Your task to perform on an android device: star an email in the gmail app Image 0: 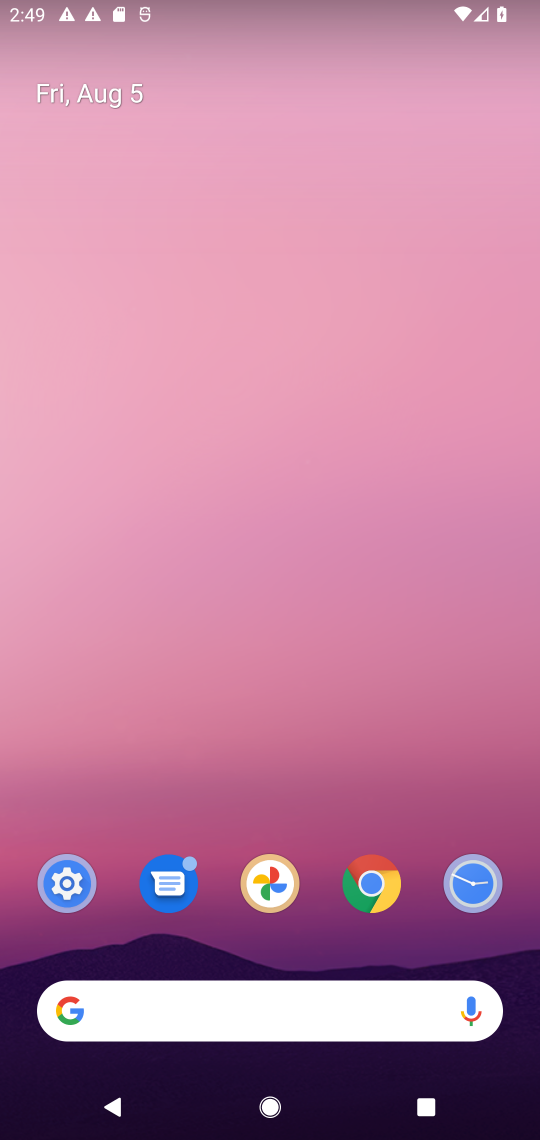
Step 0: press home button
Your task to perform on an android device: star an email in the gmail app Image 1: 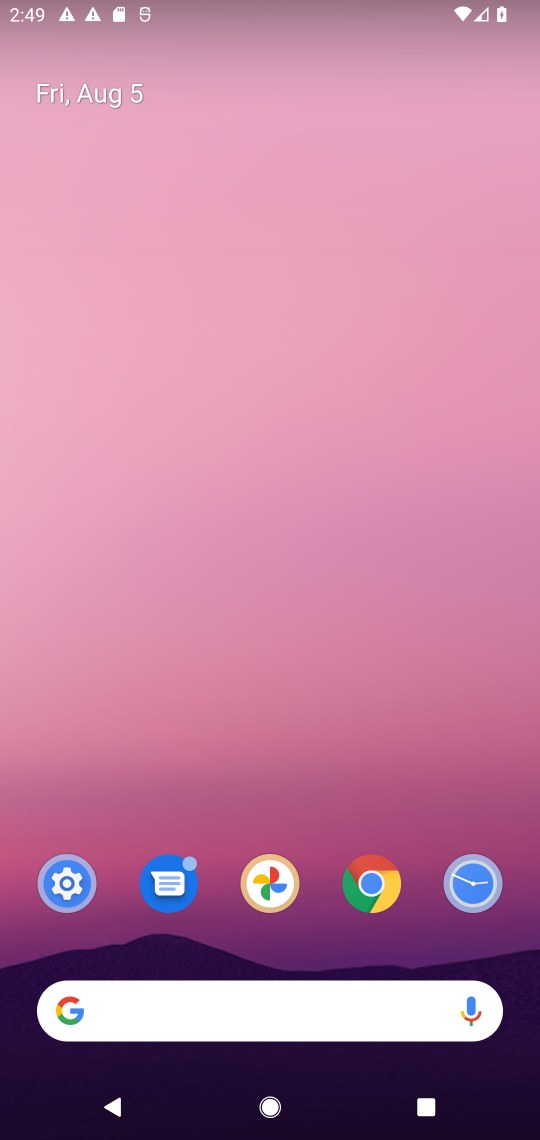
Step 1: drag from (324, 929) to (305, 60)
Your task to perform on an android device: star an email in the gmail app Image 2: 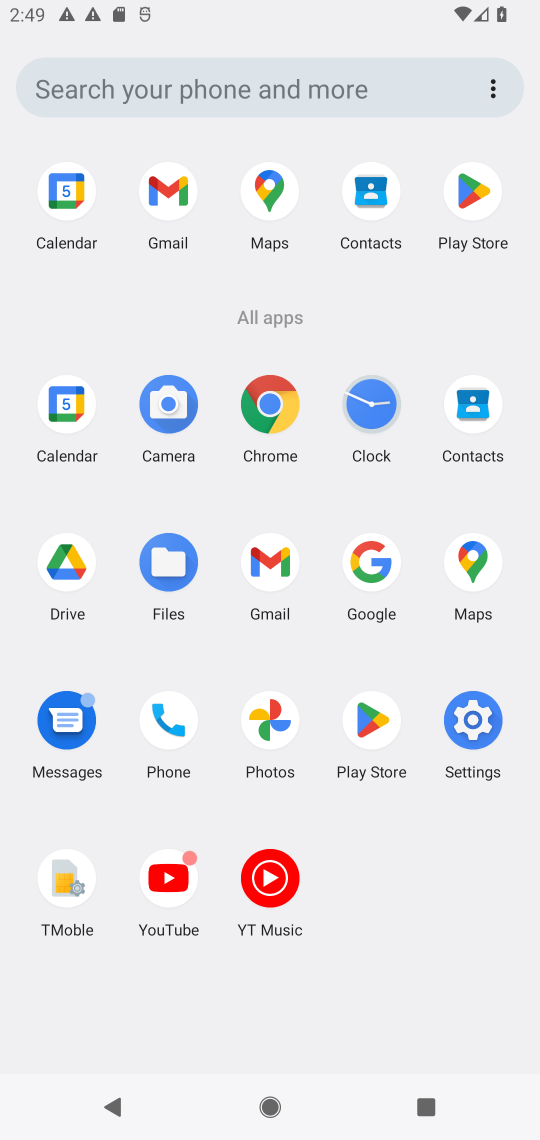
Step 2: click (267, 549)
Your task to perform on an android device: star an email in the gmail app Image 3: 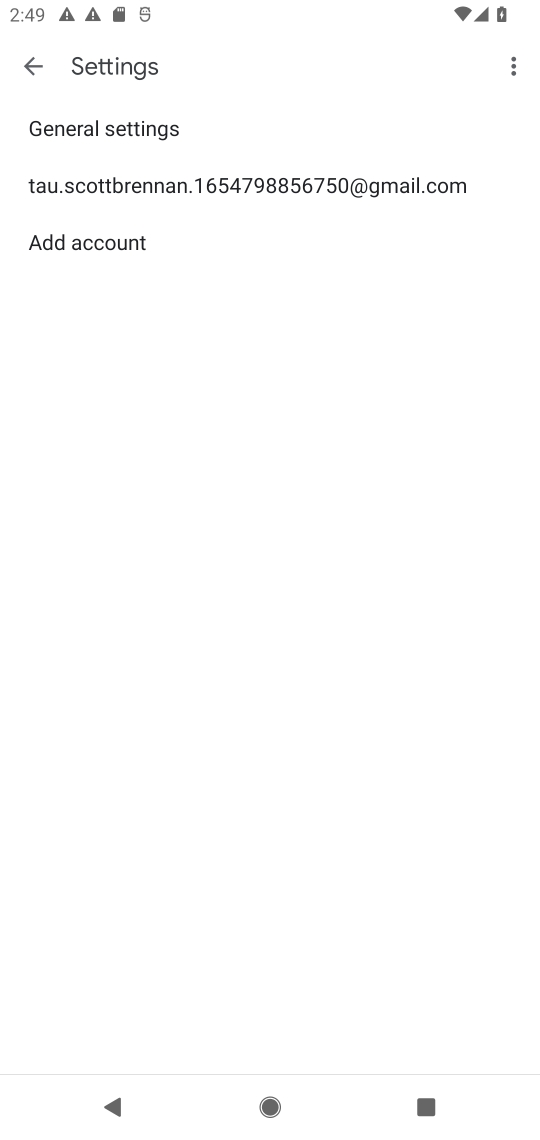
Step 3: click (33, 69)
Your task to perform on an android device: star an email in the gmail app Image 4: 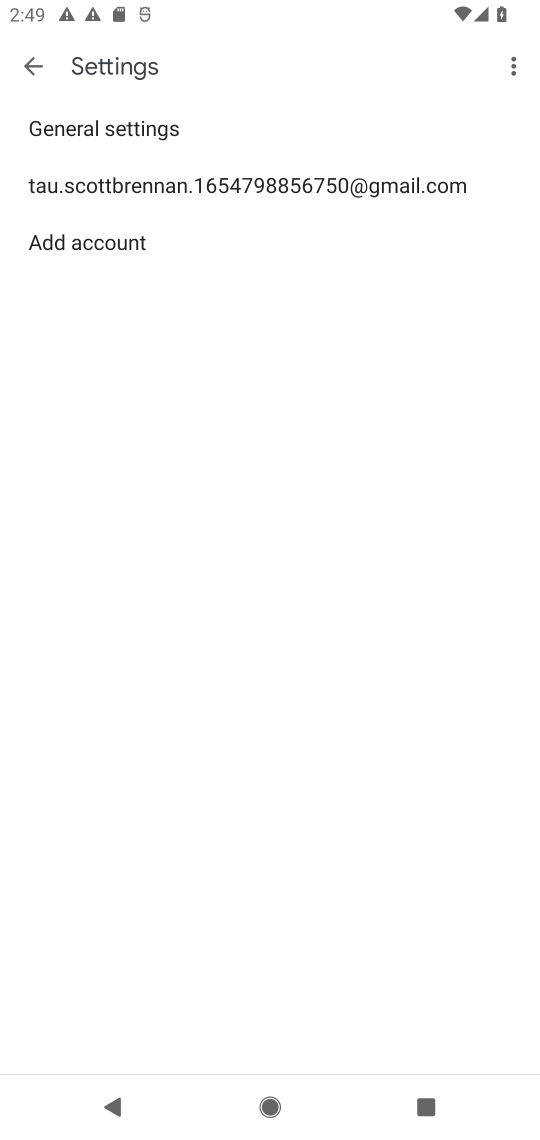
Step 4: click (30, 66)
Your task to perform on an android device: star an email in the gmail app Image 5: 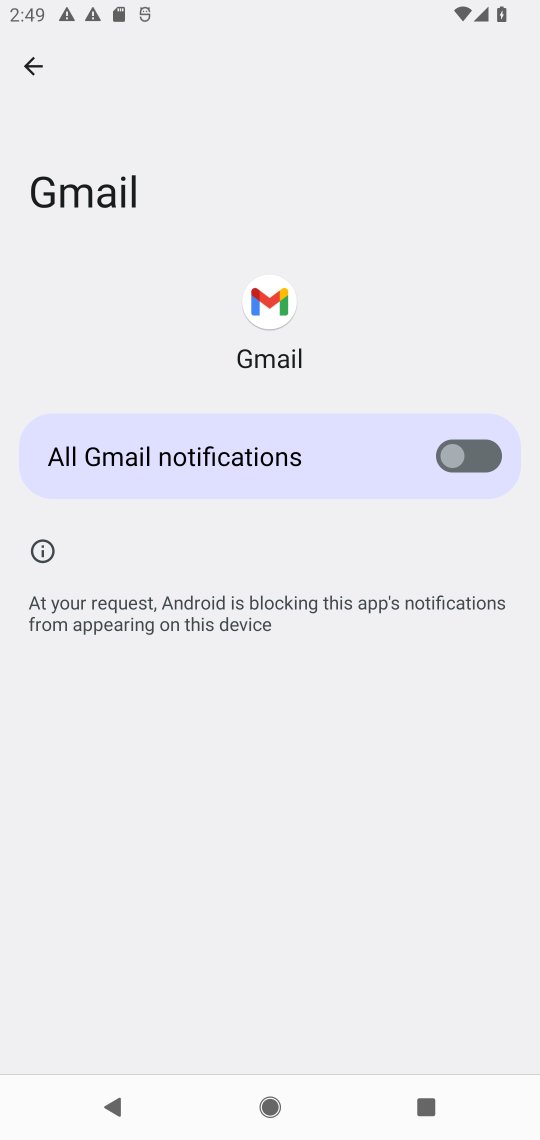
Step 5: click (36, 58)
Your task to perform on an android device: star an email in the gmail app Image 6: 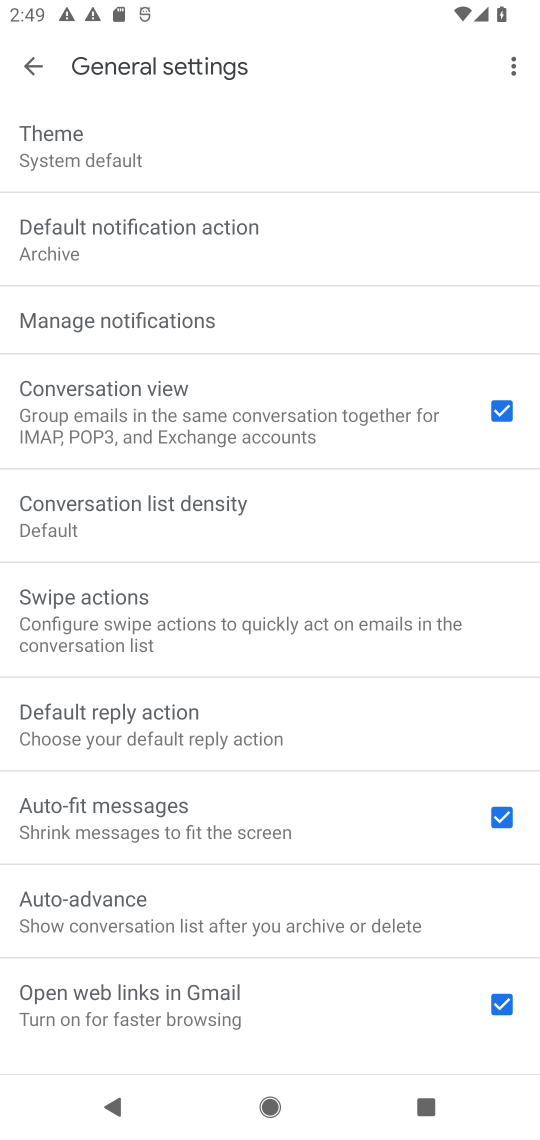
Step 6: click (26, 69)
Your task to perform on an android device: star an email in the gmail app Image 7: 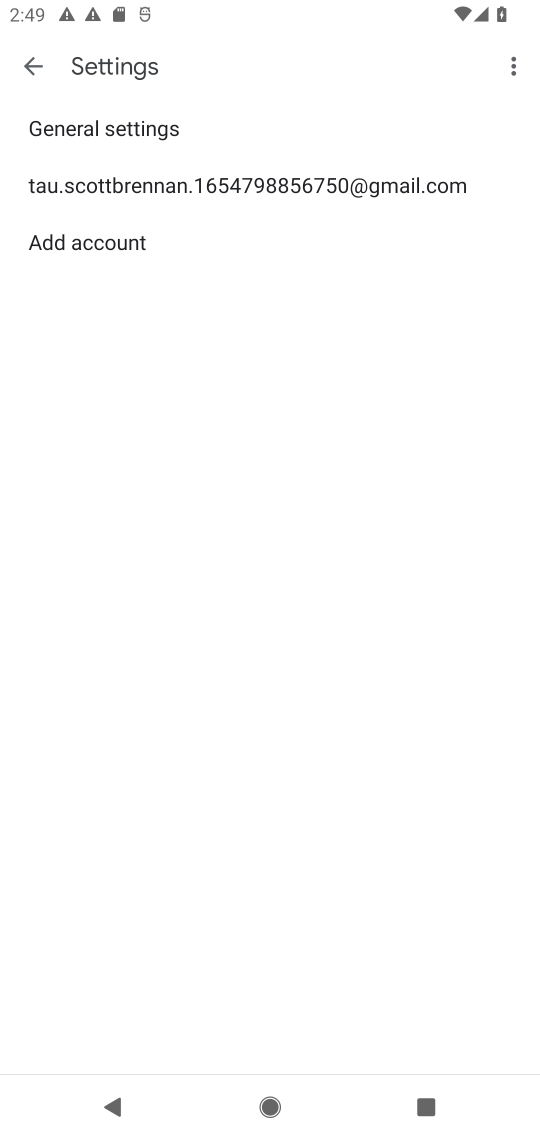
Step 7: click (29, 68)
Your task to perform on an android device: star an email in the gmail app Image 8: 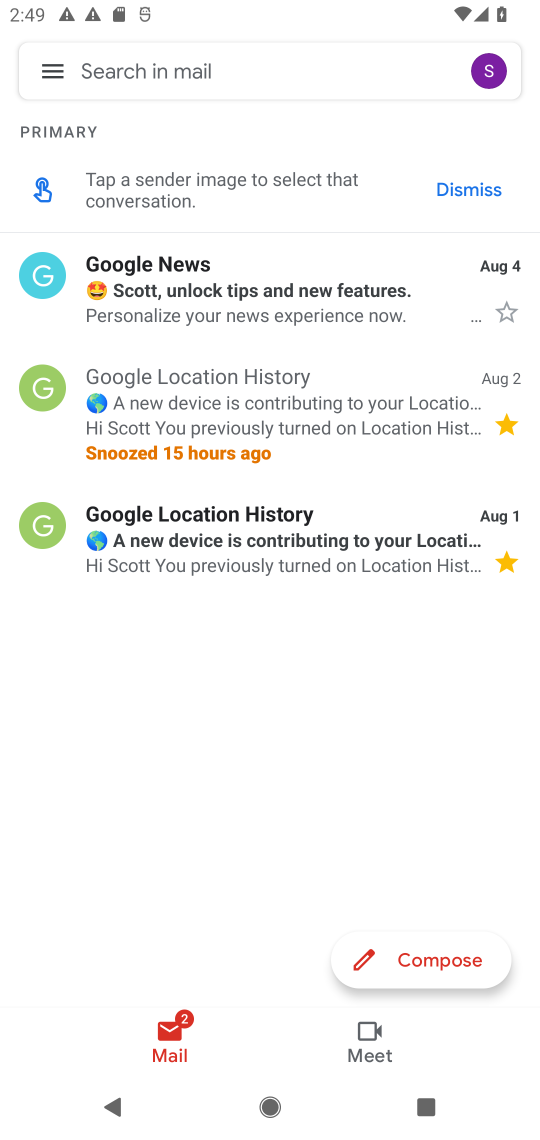
Step 8: click (504, 312)
Your task to perform on an android device: star an email in the gmail app Image 9: 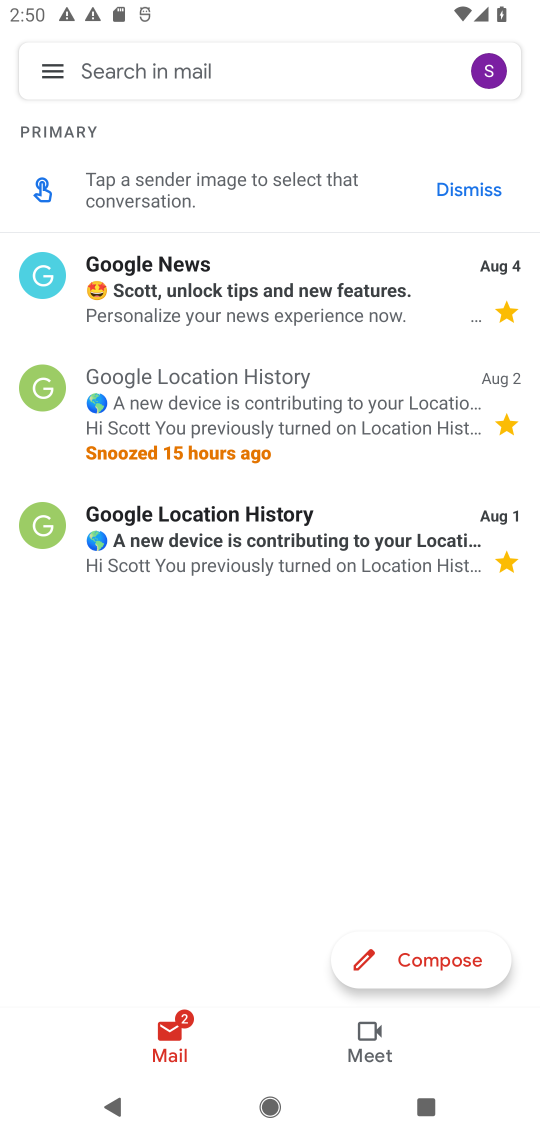
Step 9: task complete